Your task to perform on an android device: uninstall "Life360: Find Family & Friends" Image 0: 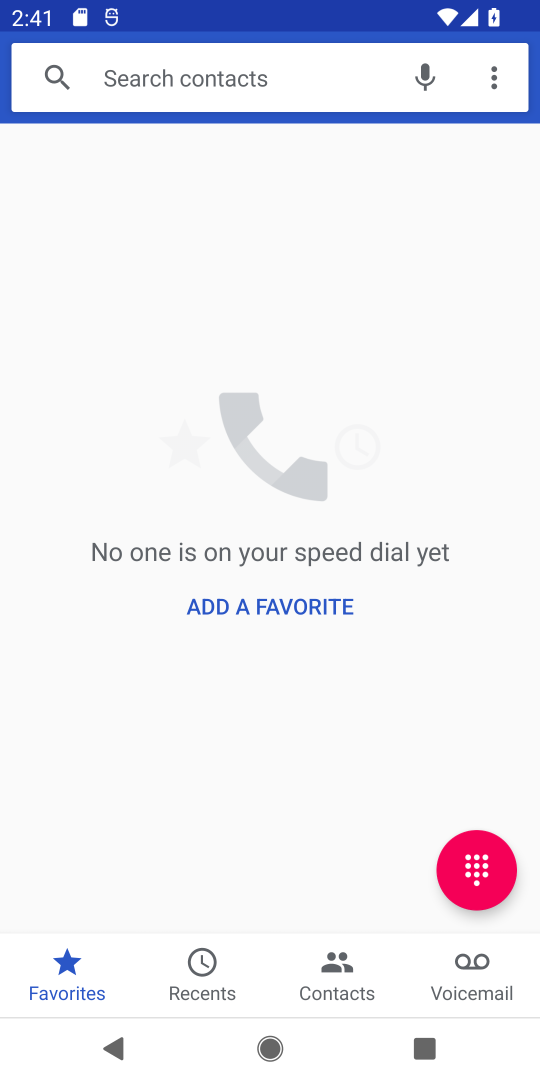
Step 0: press home button
Your task to perform on an android device: uninstall "Life360: Find Family & Friends" Image 1: 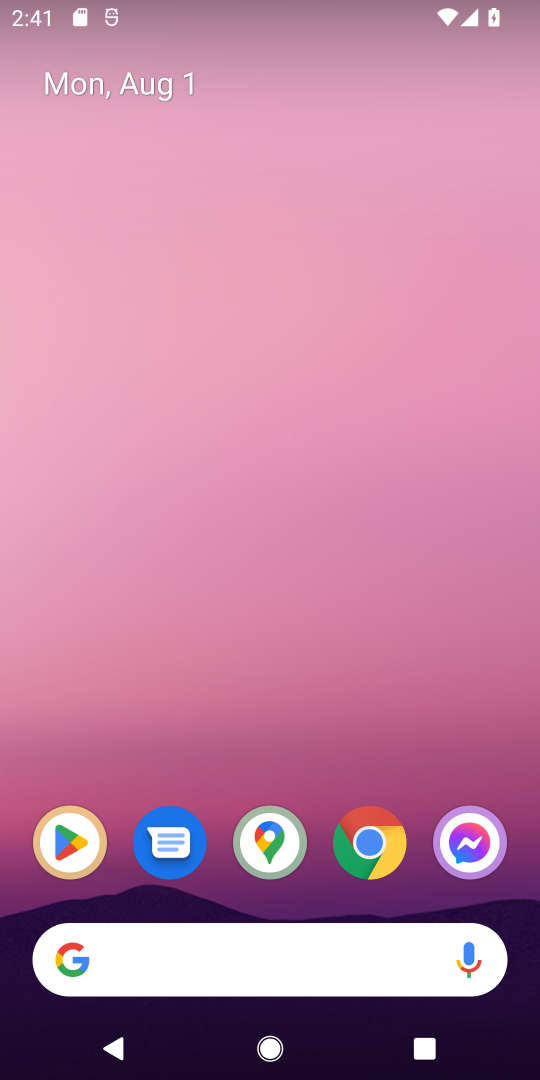
Step 1: click (70, 830)
Your task to perform on an android device: uninstall "Life360: Find Family & Friends" Image 2: 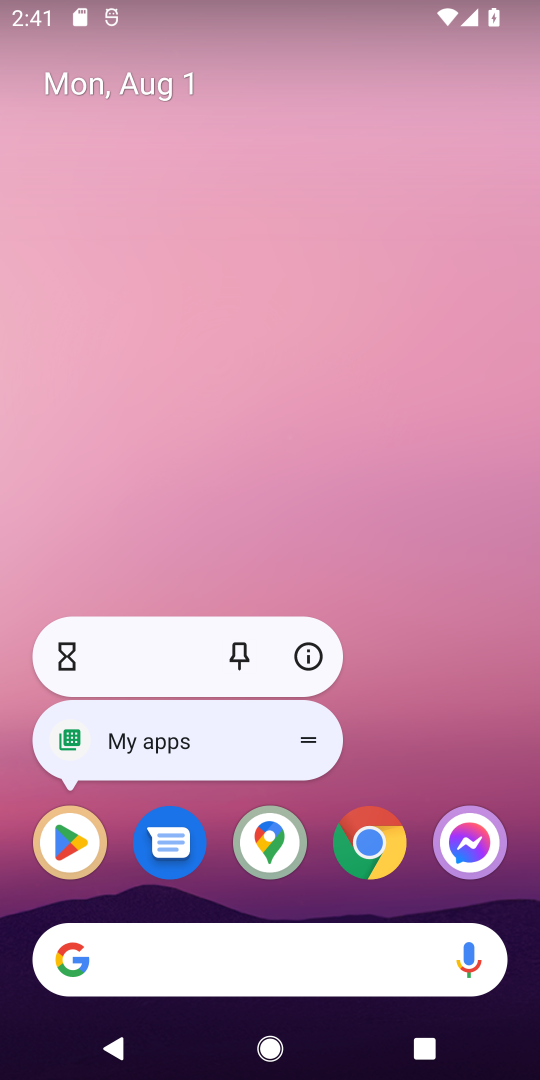
Step 2: click (56, 863)
Your task to perform on an android device: uninstall "Life360: Find Family & Friends" Image 3: 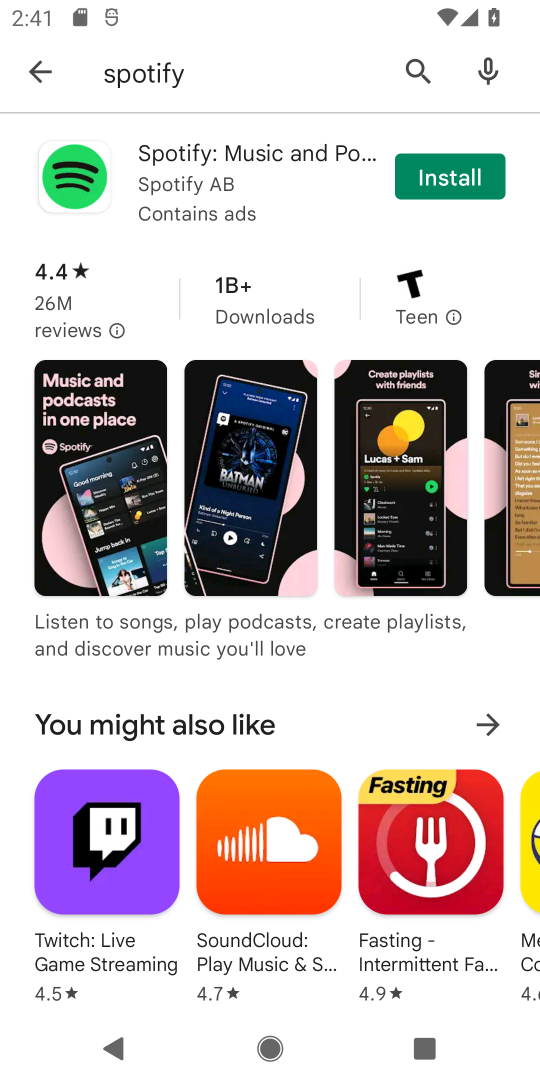
Step 3: click (214, 85)
Your task to perform on an android device: uninstall "Life360: Find Family & Friends" Image 4: 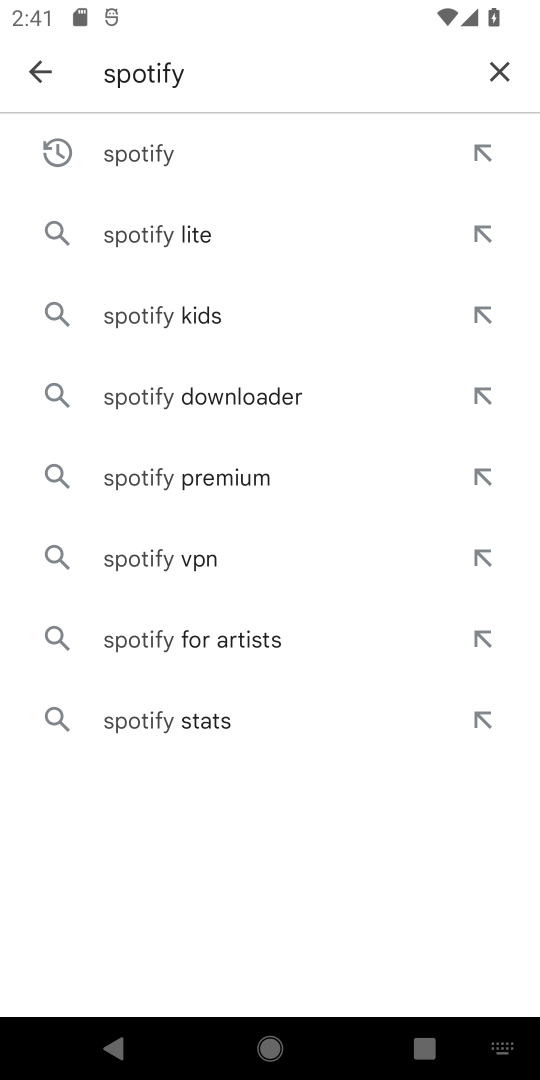
Step 4: click (497, 70)
Your task to perform on an android device: uninstall "Life360: Find Family & Friends" Image 5: 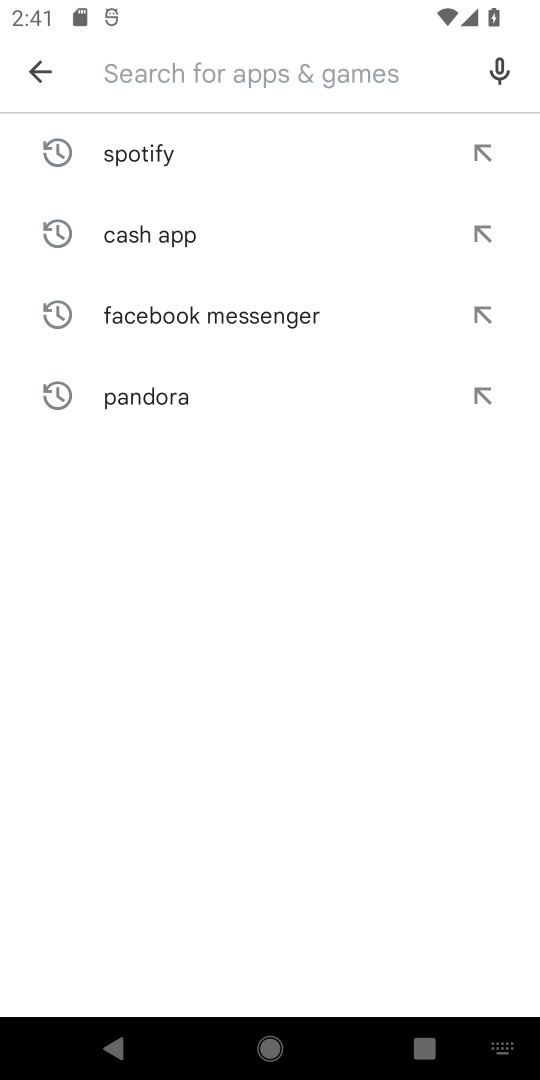
Step 5: type "life "
Your task to perform on an android device: uninstall "Life360: Find Family & Friends" Image 6: 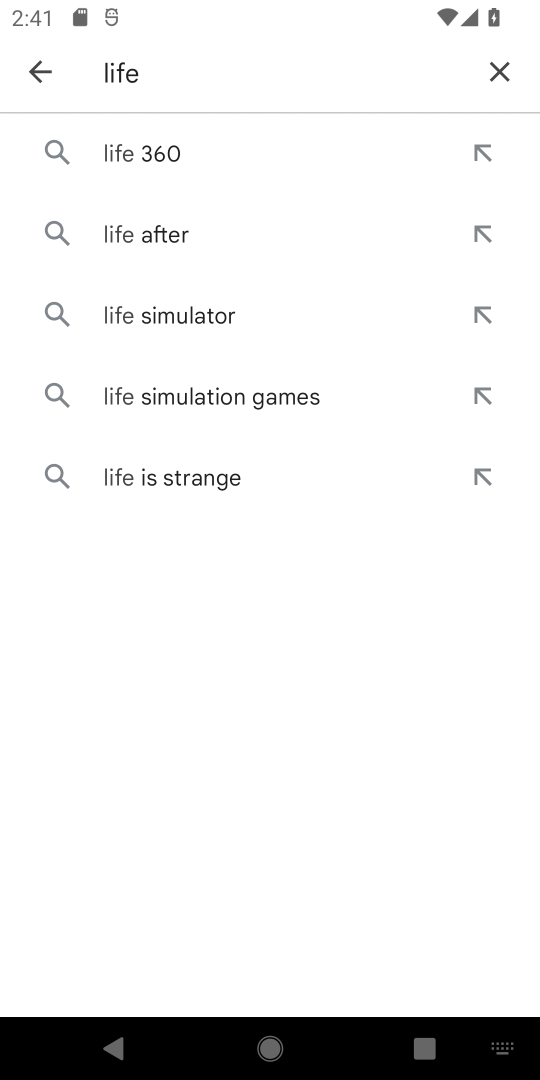
Step 6: click (149, 146)
Your task to perform on an android device: uninstall "Life360: Find Family & Friends" Image 7: 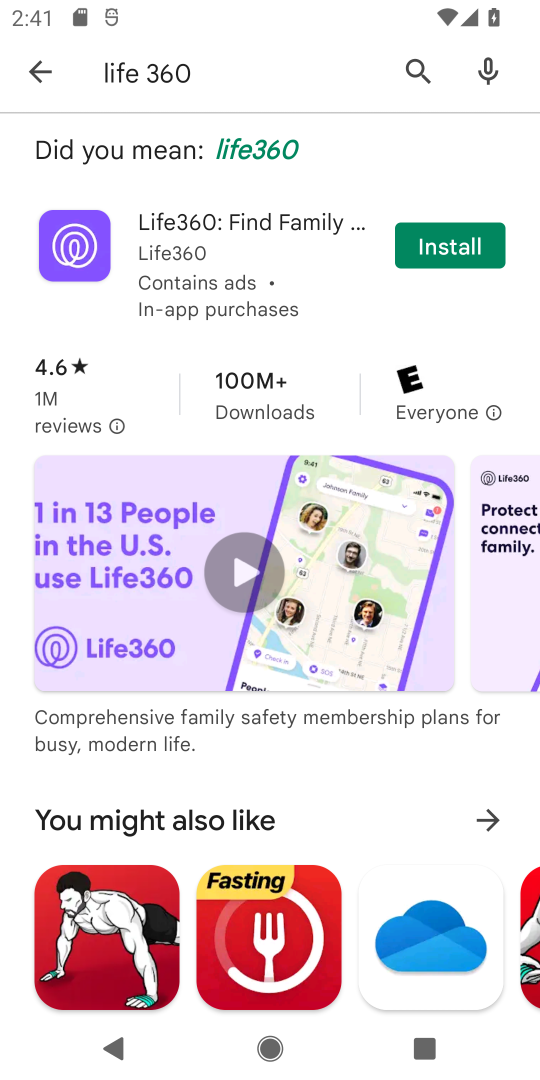
Step 7: task complete